Your task to perform on an android device: toggle javascript in the chrome app Image 0: 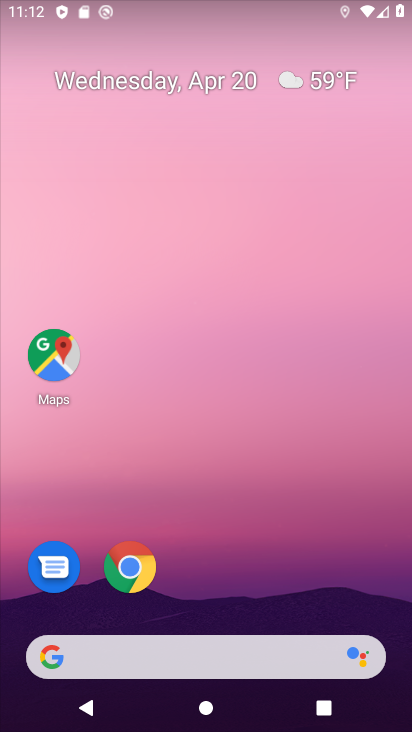
Step 0: click (129, 567)
Your task to perform on an android device: toggle javascript in the chrome app Image 1: 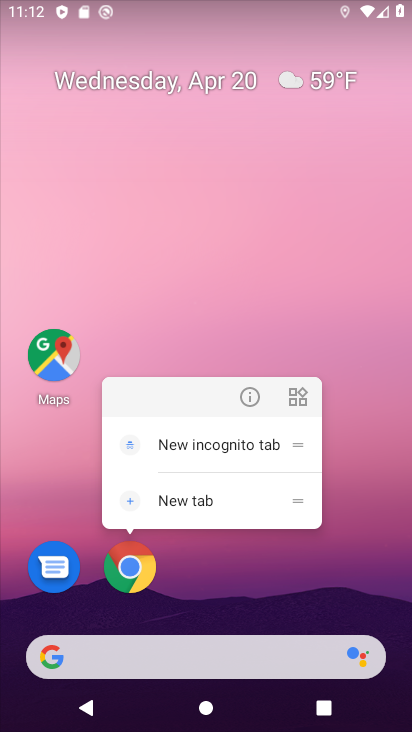
Step 1: click (129, 567)
Your task to perform on an android device: toggle javascript in the chrome app Image 2: 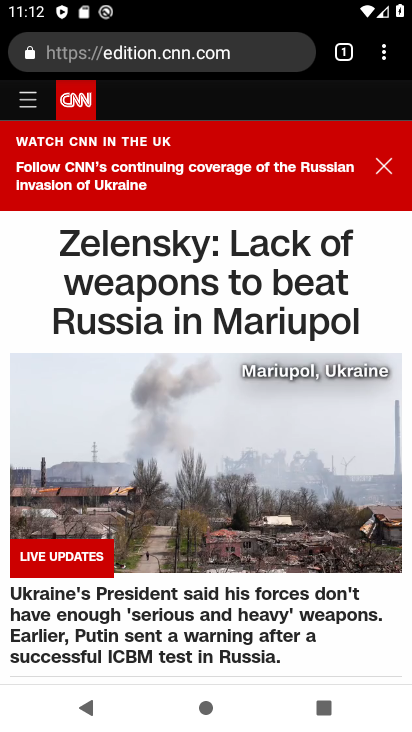
Step 2: click (384, 49)
Your task to perform on an android device: toggle javascript in the chrome app Image 3: 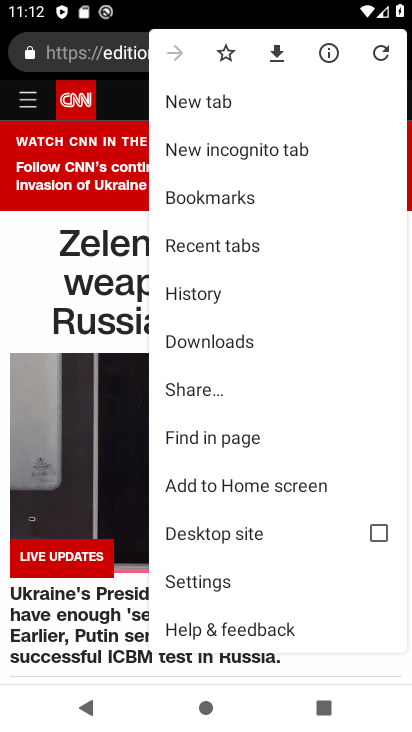
Step 3: click (256, 574)
Your task to perform on an android device: toggle javascript in the chrome app Image 4: 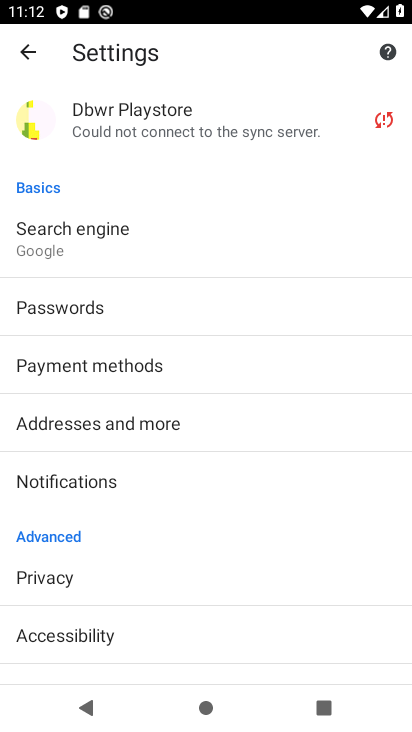
Step 4: drag from (152, 593) to (124, 499)
Your task to perform on an android device: toggle javascript in the chrome app Image 5: 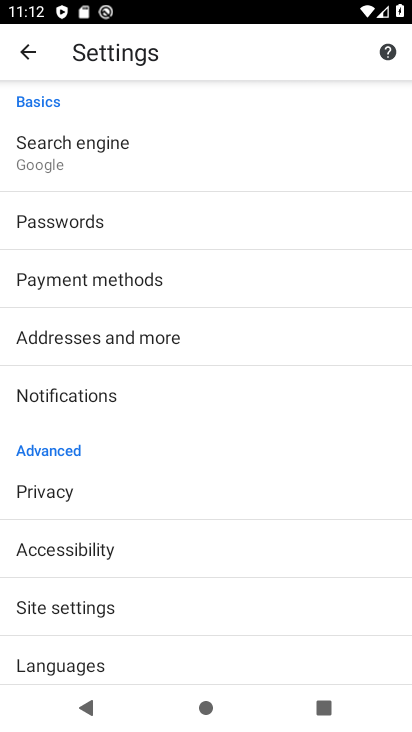
Step 5: click (168, 608)
Your task to perform on an android device: toggle javascript in the chrome app Image 6: 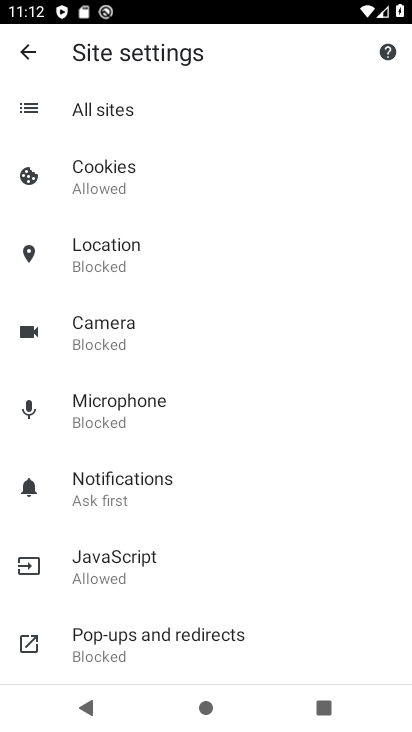
Step 6: click (128, 552)
Your task to perform on an android device: toggle javascript in the chrome app Image 7: 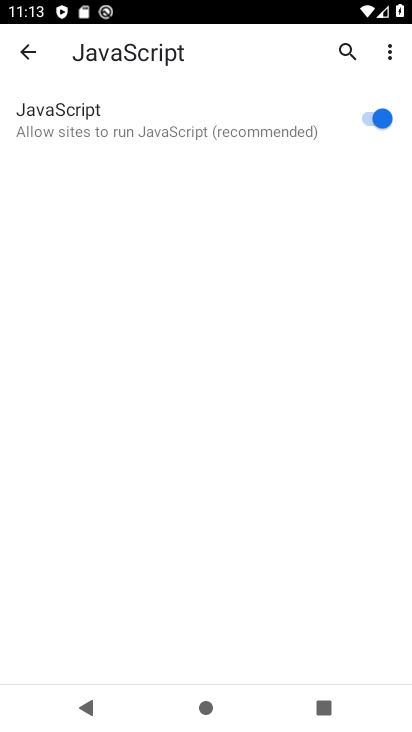
Step 7: click (348, 131)
Your task to perform on an android device: toggle javascript in the chrome app Image 8: 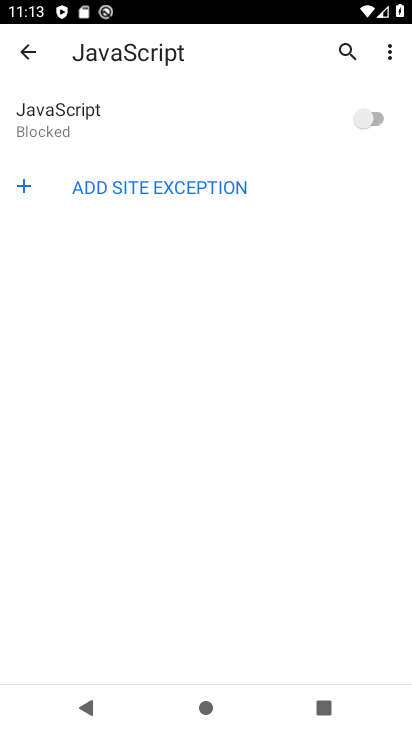
Step 8: task complete